Your task to perform on an android device: toggle data saver in the chrome app Image 0: 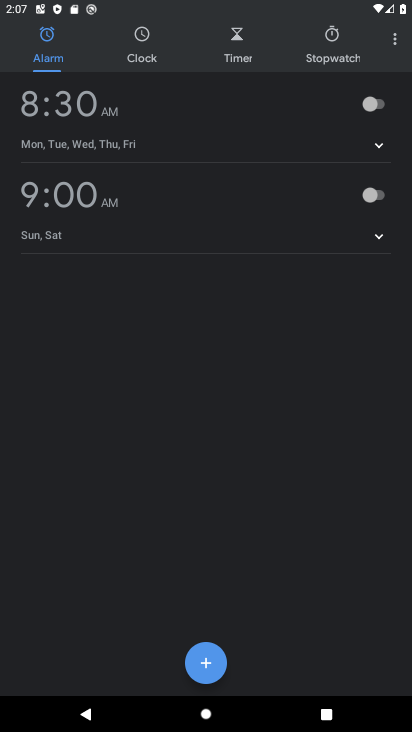
Step 0: press home button
Your task to perform on an android device: toggle data saver in the chrome app Image 1: 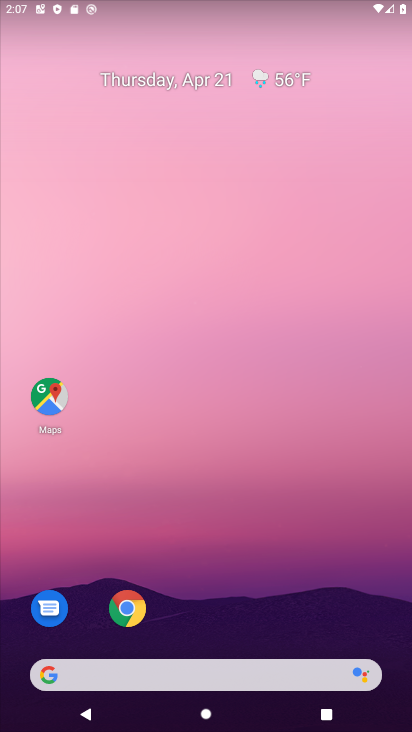
Step 1: click (128, 609)
Your task to perform on an android device: toggle data saver in the chrome app Image 2: 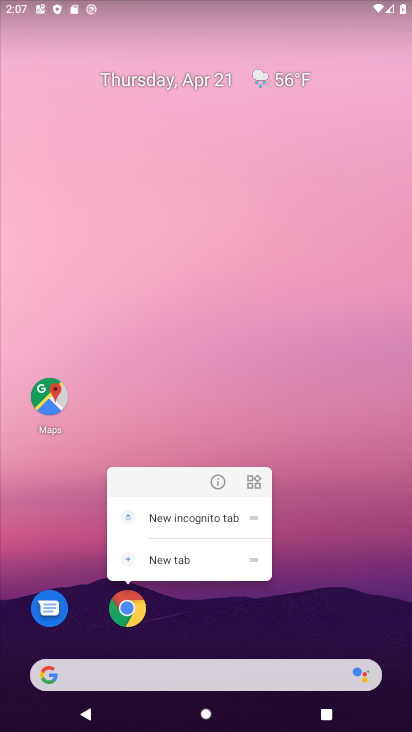
Step 2: click (129, 608)
Your task to perform on an android device: toggle data saver in the chrome app Image 3: 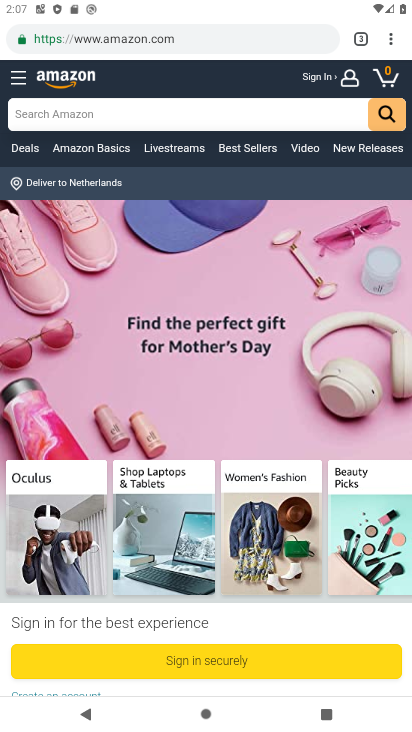
Step 3: click (393, 35)
Your task to perform on an android device: toggle data saver in the chrome app Image 4: 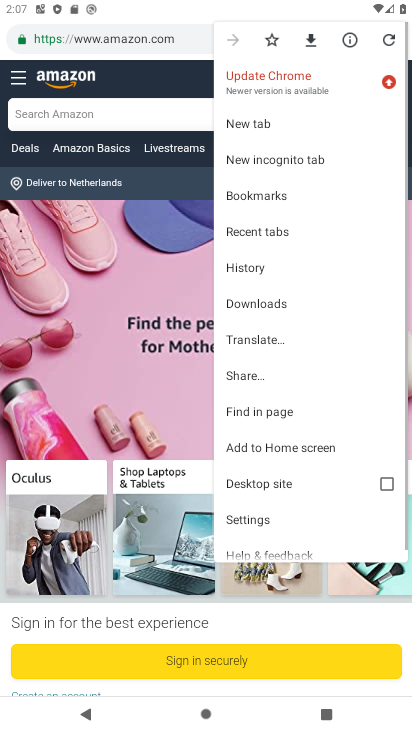
Step 4: click (393, 35)
Your task to perform on an android device: toggle data saver in the chrome app Image 5: 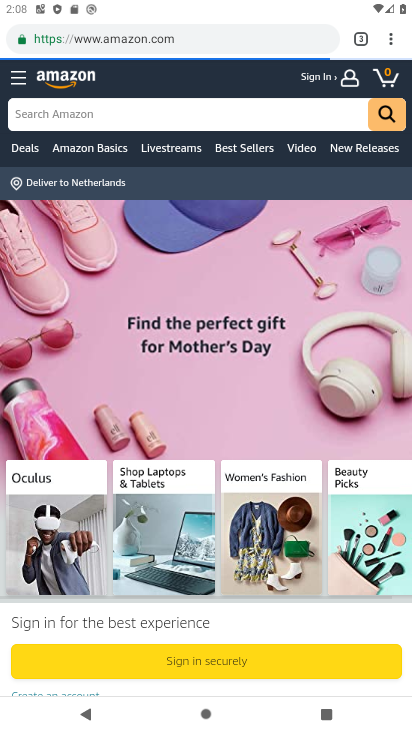
Step 5: click (393, 35)
Your task to perform on an android device: toggle data saver in the chrome app Image 6: 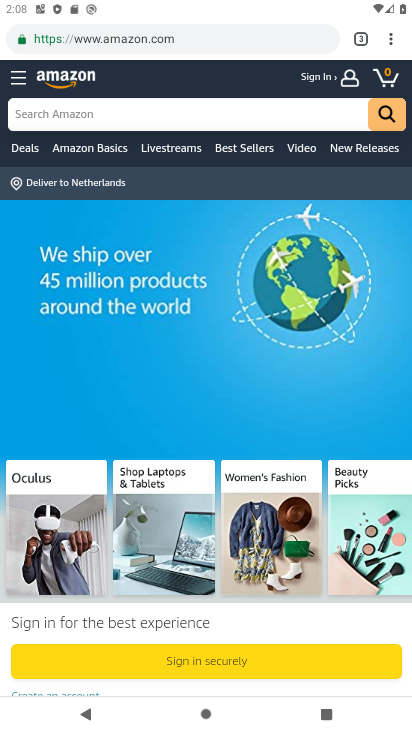
Step 6: click (390, 46)
Your task to perform on an android device: toggle data saver in the chrome app Image 7: 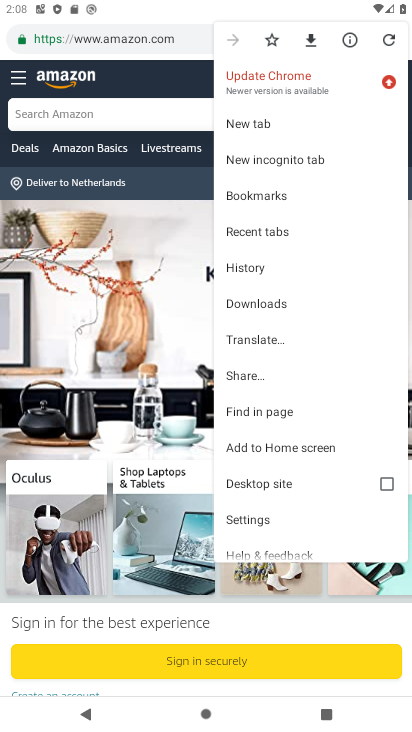
Step 7: click (263, 527)
Your task to perform on an android device: toggle data saver in the chrome app Image 8: 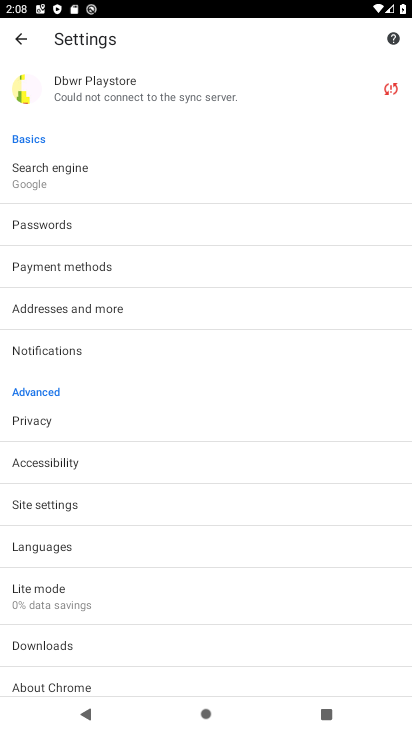
Step 8: click (96, 592)
Your task to perform on an android device: toggle data saver in the chrome app Image 9: 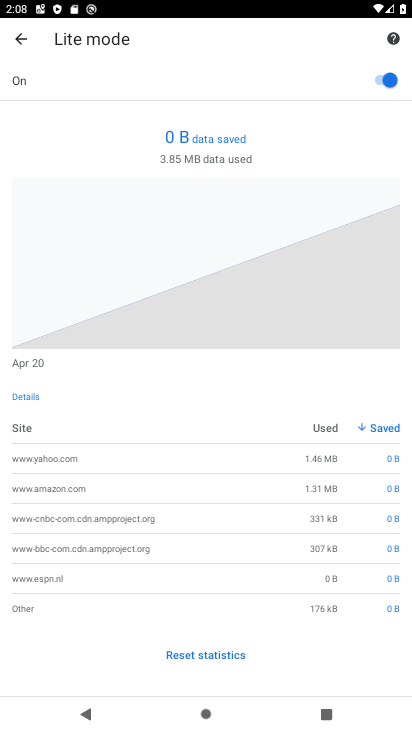
Step 9: click (373, 77)
Your task to perform on an android device: toggle data saver in the chrome app Image 10: 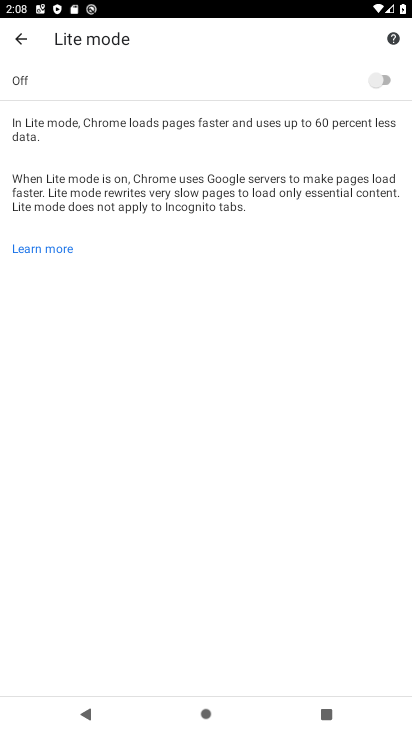
Step 10: task complete